Your task to perform on an android device: snooze an email in the gmail app Image 0: 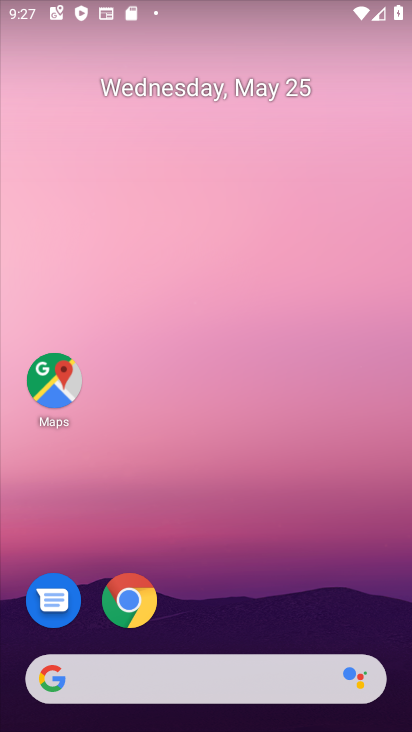
Step 0: drag from (285, 615) to (245, 14)
Your task to perform on an android device: snooze an email in the gmail app Image 1: 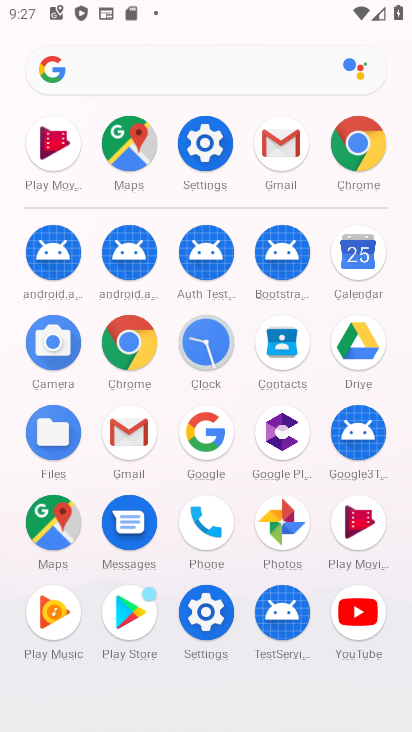
Step 1: drag from (13, 578) to (10, 233)
Your task to perform on an android device: snooze an email in the gmail app Image 2: 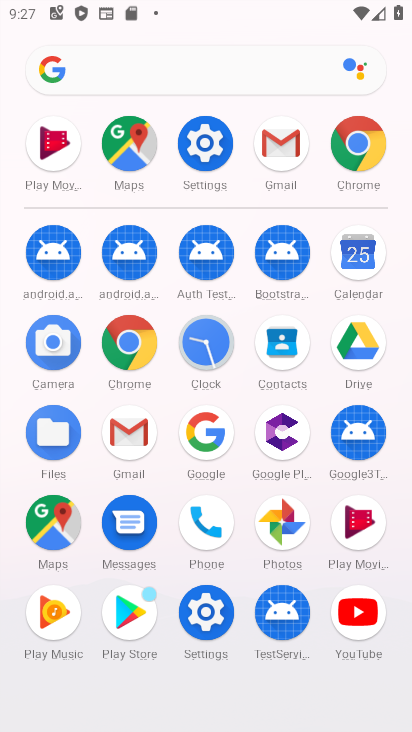
Step 2: click (124, 429)
Your task to perform on an android device: snooze an email in the gmail app Image 3: 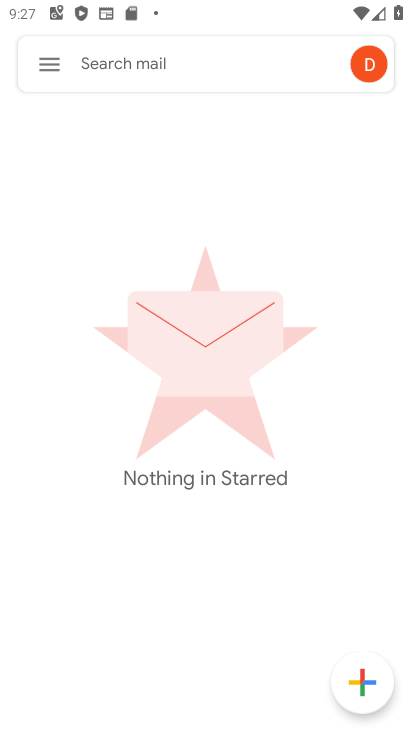
Step 3: click (48, 61)
Your task to perform on an android device: snooze an email in the gmail app Image 4: 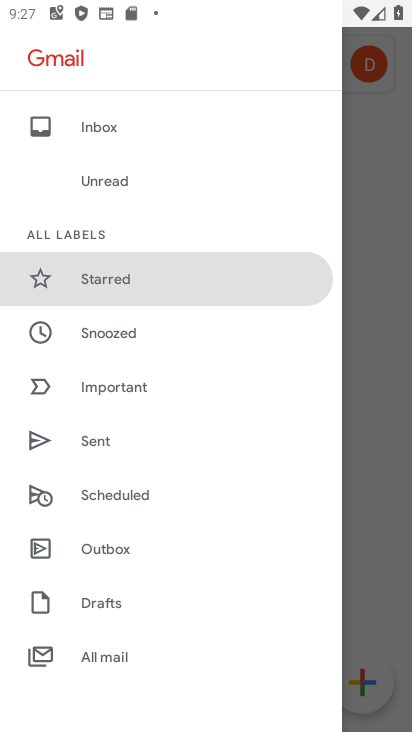
Step 4: click (123, 333)
Your task to perform on an android device: snooze an email in the gmail app Image 5: 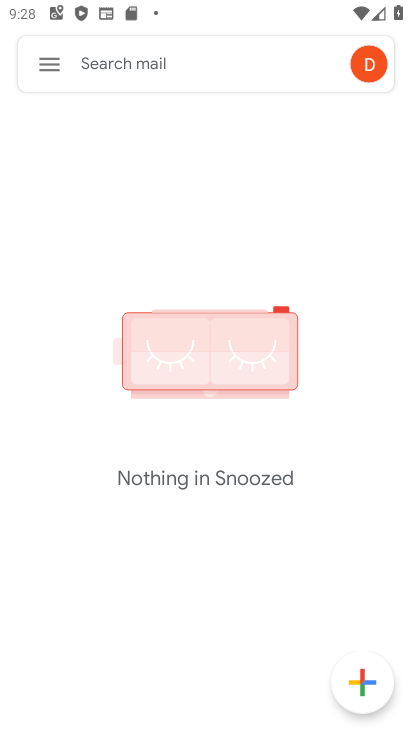
Step 5: task complete